Your task to perform on an android device: delete the emails in spam in the gmail app Image 0: 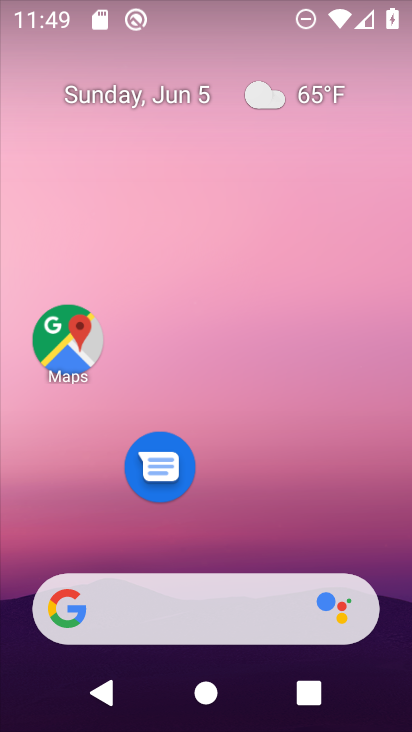
Step 0: drag from (300, 427) to (322, 86)
Your task to perform on an android device: delete the emails in spam in the gmail app Image 1: 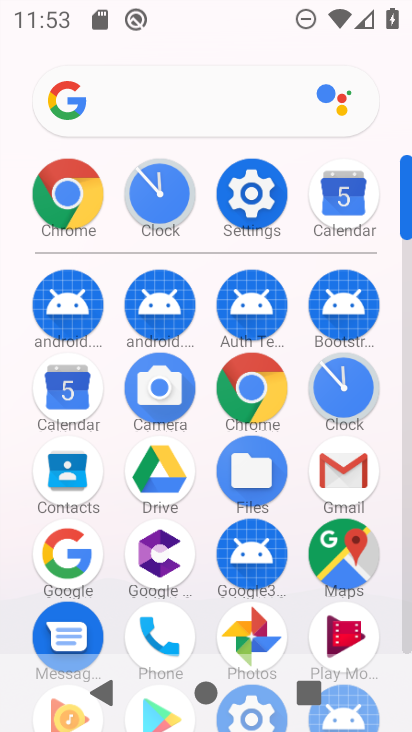
Step 1: click (341, 473)
Your task to perform on an android device: delete the emails in spam in the gmail app Image 2: 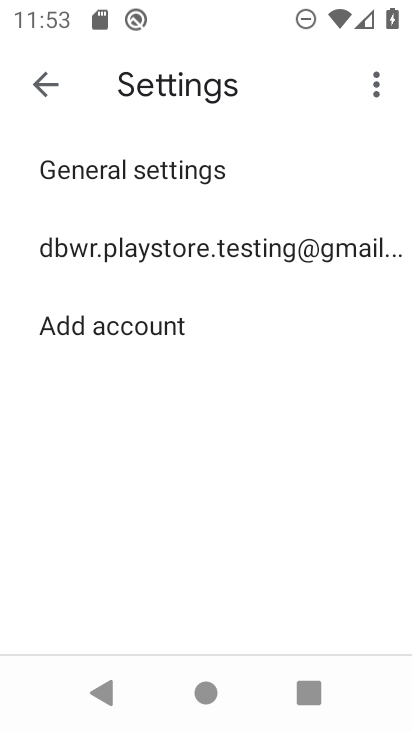
Step 2: task complete